Your task to perform on an android device: turn off data saver in the chrome app Image 0: 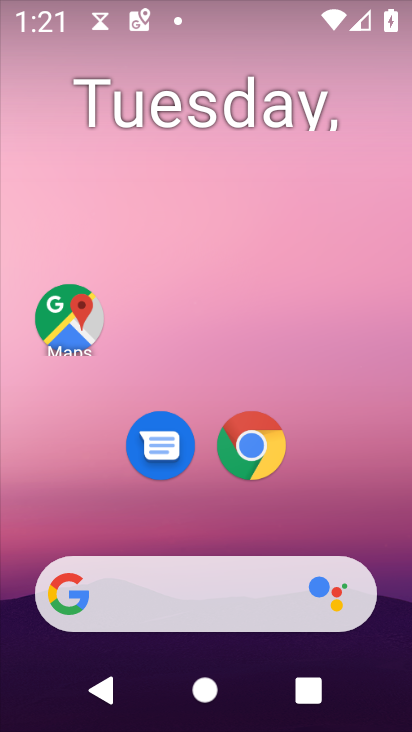
Step 0: drag from (246, 545) to (203, 1)
Your task to perform on an android device: turn off data saver in the chrome app Image 1: 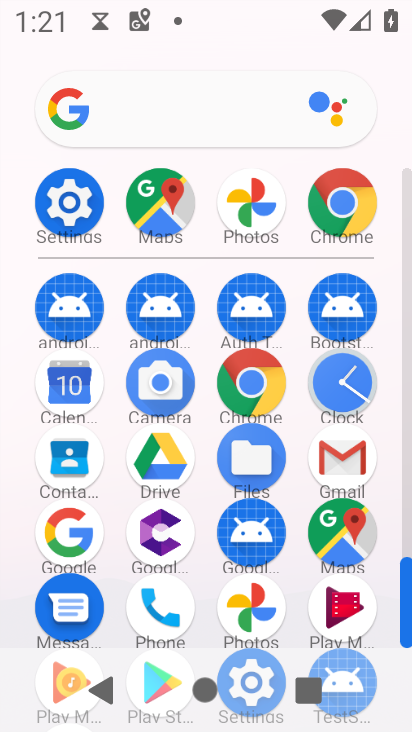
Step 1: click (250, 389)
Your task to perform on an android device: turn off data saver in the chrome app Image 2: 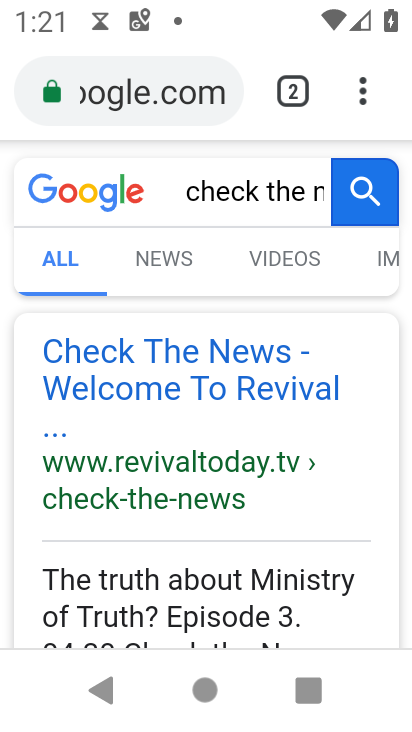
Step 2: drag from (353, 92) to (261, 560)
Your task to perform on an android device: turn off data saver in the chrome app Image 3: 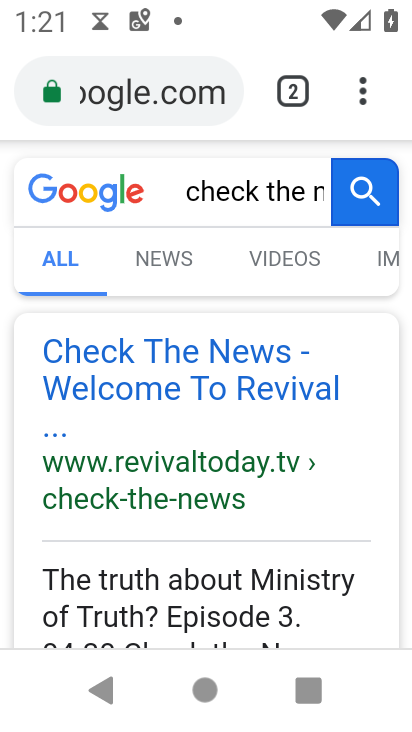
Step 3: click (226, 486)
Your task to perform on an android device: turn off data saver in the chrome app Image 4: 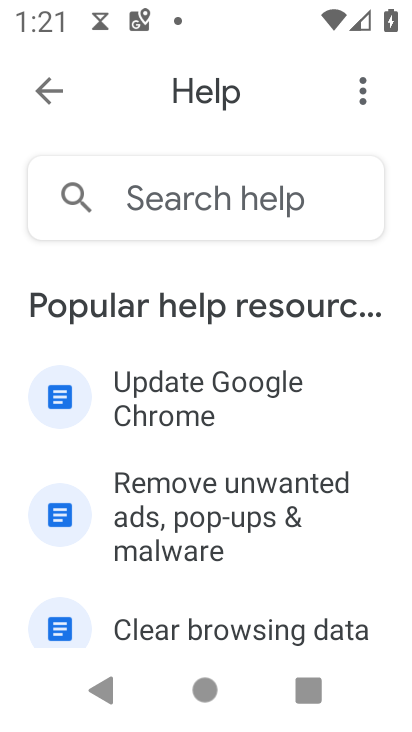
Step 4: drag from (363, 89) to (306, 328)
Your task to perform on an android device: turn off data saver in the chrome app Image 5: 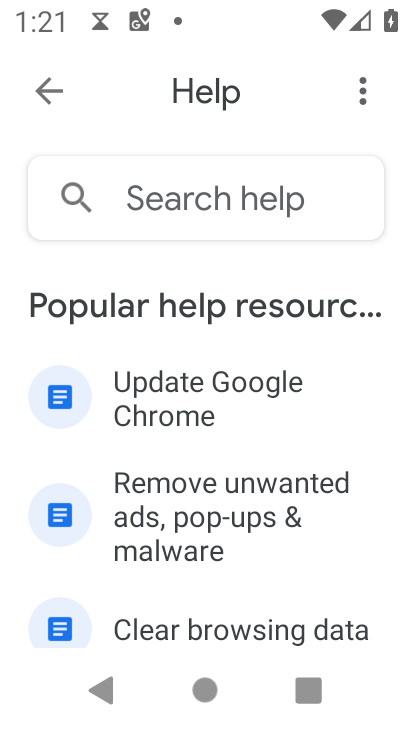
Step 5: press back button
Your task to perform on an android device: turn off data saver in the chrome app Image 6: 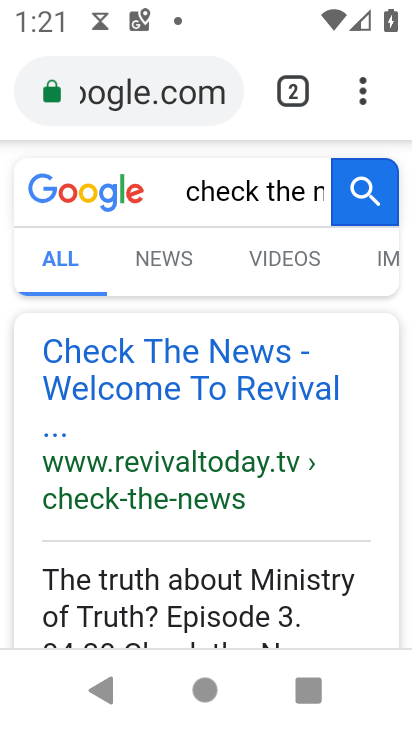
Step 6: drag from (360, 93) to (240, 476)
Your task to perform on an android device: turn off data saver in the chrome app Image 7: 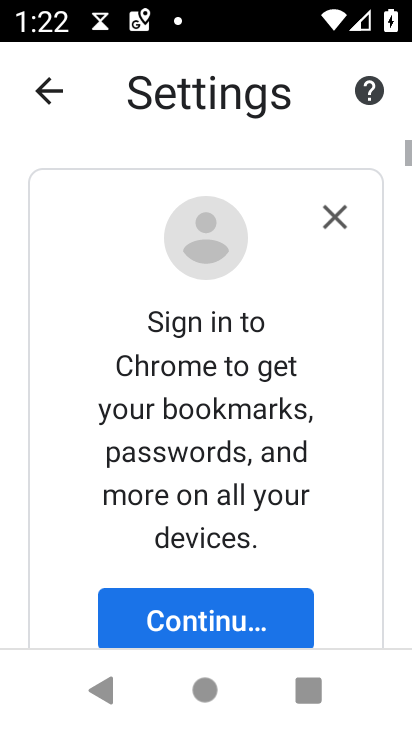
Step 7: drag from (306, 560) to (296, 32)
Your task to perform on an android device: turn off data saver in the chrome app Image 8: 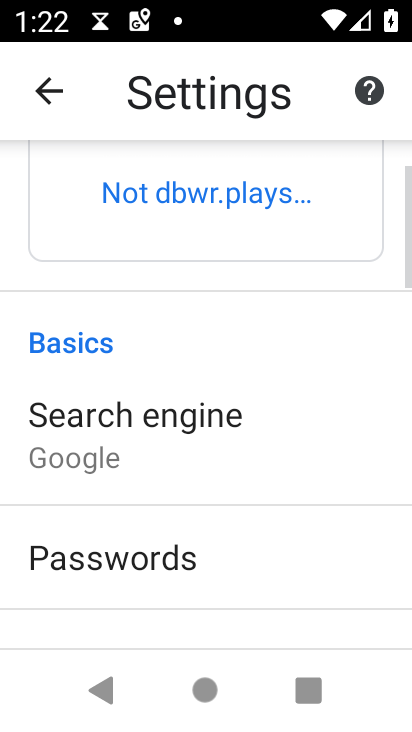
Step 8: drag from (293, 558) to (282, 227)
Your task to perform on an android device: turn off data saver in the chrome app Image 9: 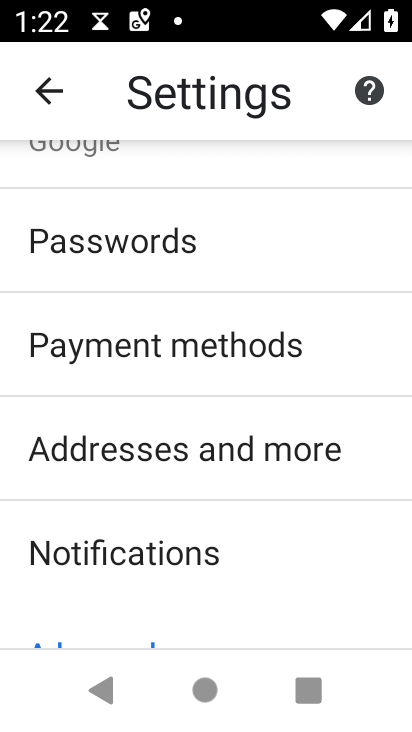
Step 9: drag from (175, 629) to (236, 341)
Your task to perform on an android device: turn off data saver in the chrome app Image 10: 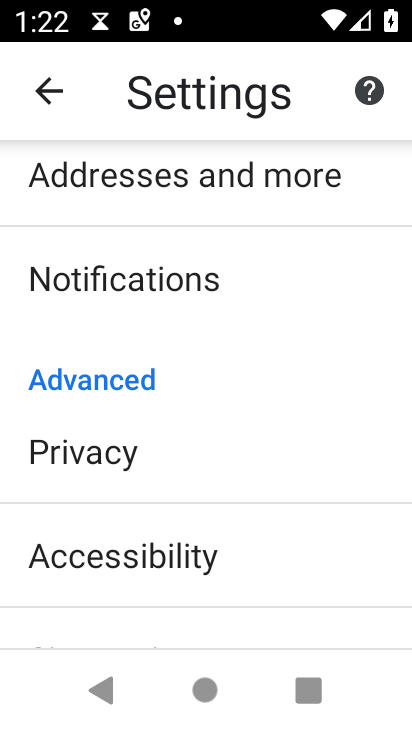
Step 10: drag from (278, 640) to (316, 257)
Your task to perform on an android device: turn off data saver in the chrome app Image 11: 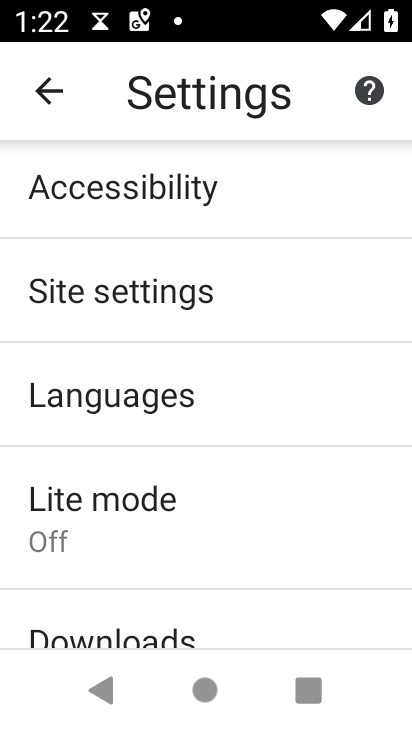
Step 11: click (206, 484)
Your task to perform on an android device: turn off data saver in the chrome app Image 12: 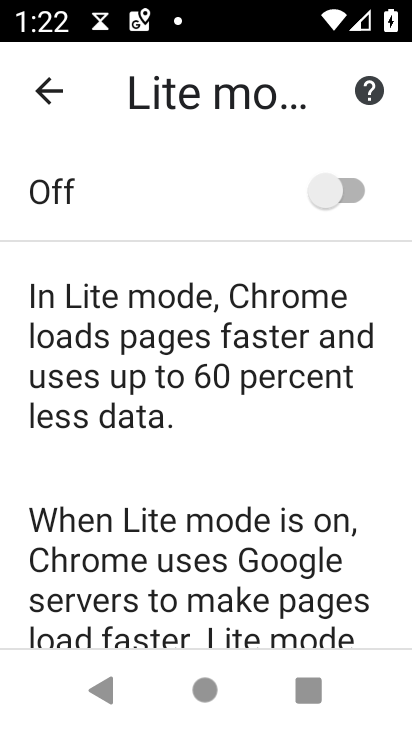
Step 12: task complete